Your task to perform on an android device: turn on wifi Image 0: 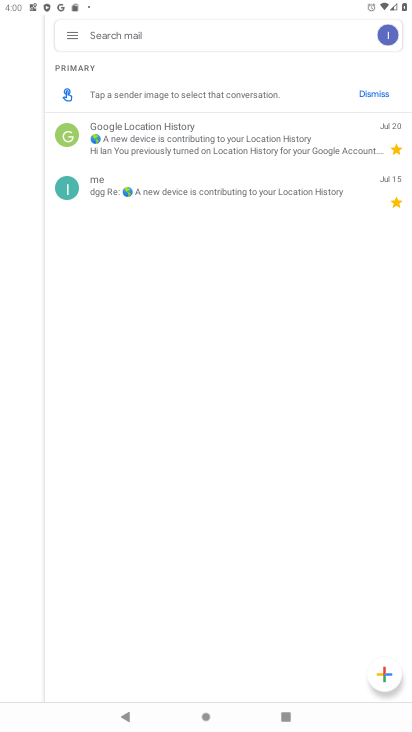
Step 0: press home button
Your task to perform on an android device: turn on wifi Image 1: 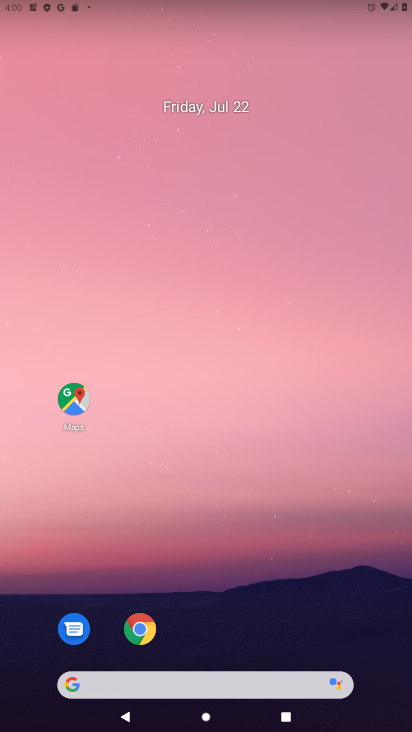
Step 1: drag from (305, 644) to (326, 197)
Your task to perform on an android device: turn on wifi Image 2: 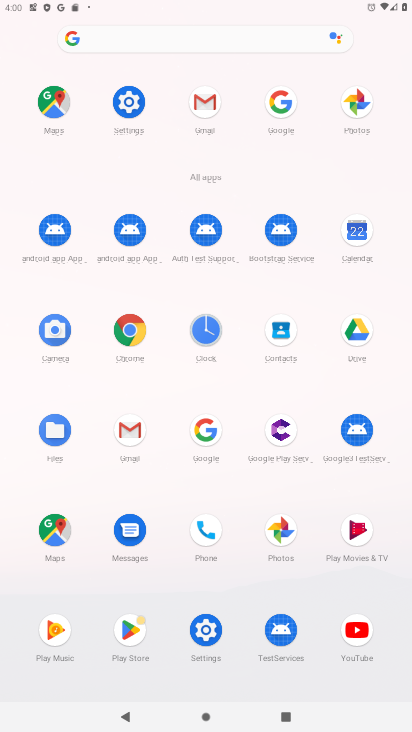
Step 2: click (144, 119)
Your task to perform on an android device: turn on wifi Image 3: 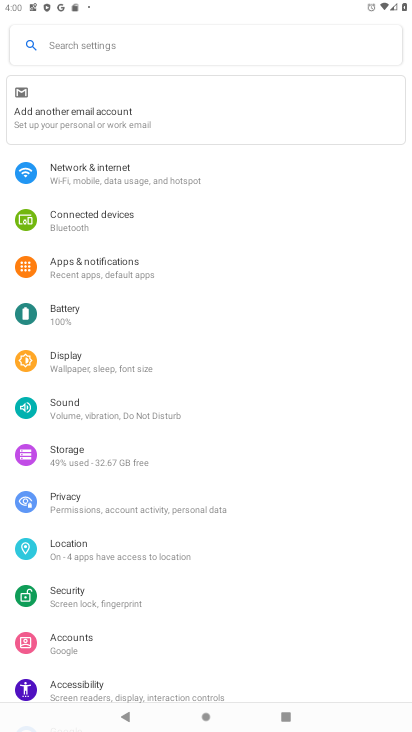
Step 3: click (126, 184)
Your task to perform on an android device: turn on wifi Image 4: 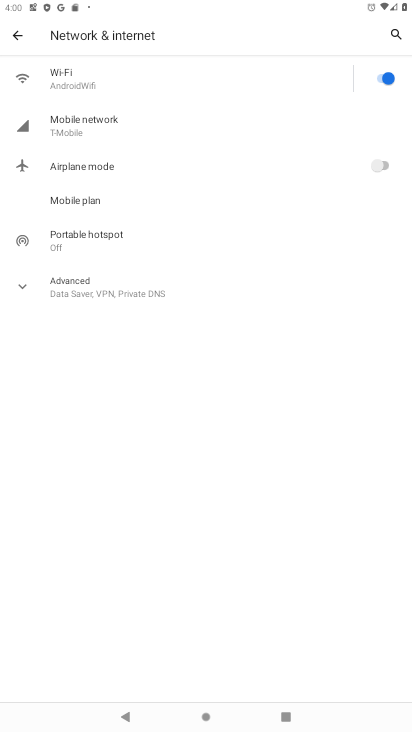
Step 4: task complete